Your task to perform on an android device: Is it going to rain tomorrow? Image 0: 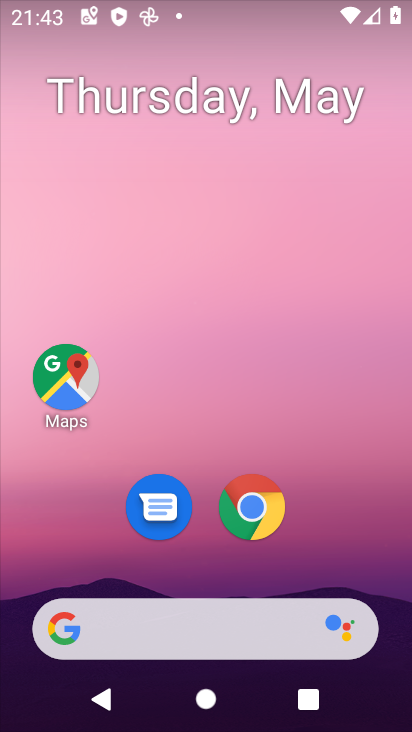
Step 0: drag from (300, 662) to (344, 269)
Your task to perform on an android device: Is it going to rain tomorrow? Image 1: 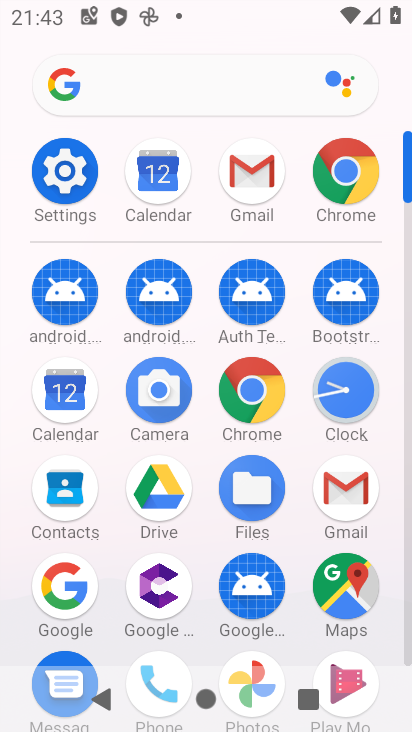
Step 1: click (172, 93)
Your task to perform on an android device: Is it going to rain tomorrow? Image 2: 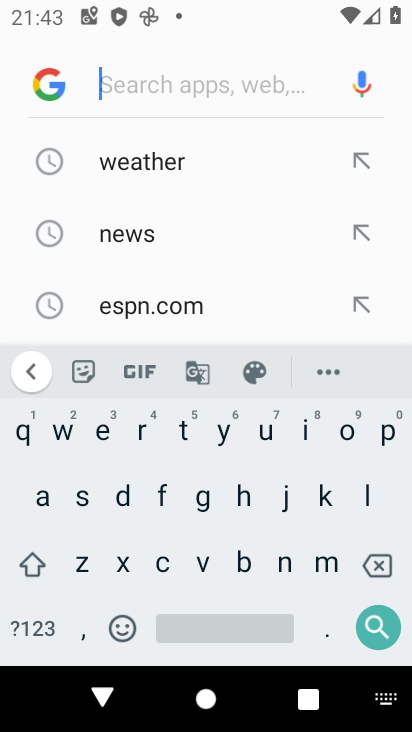
Step 2: click (159, 169)
Your task to perform on an android device: Is it going to rain tomorrow? Image 3: 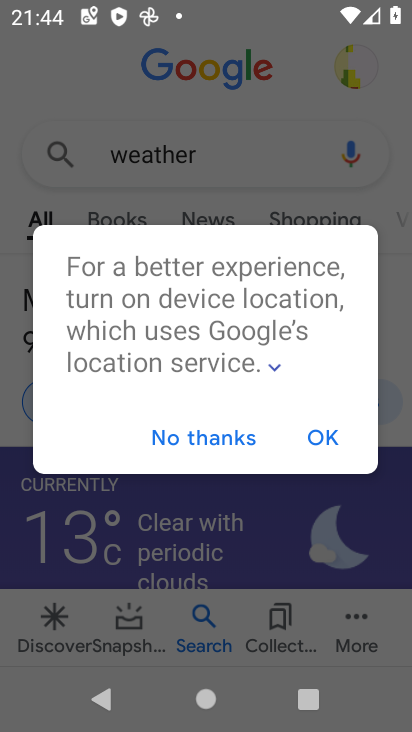
Step 3: click (214, 442)
Your task to perform on an android device: Is it going to rain tomorrow? Image 4: 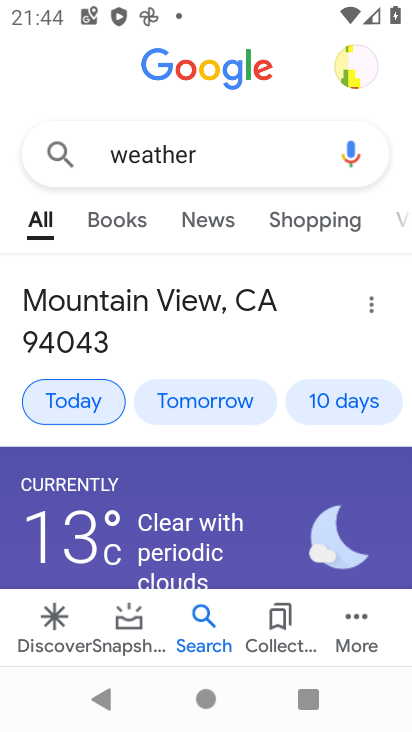
Step 4: task complete